Your task to perform on an android device: turn on sleep mode Image 0: 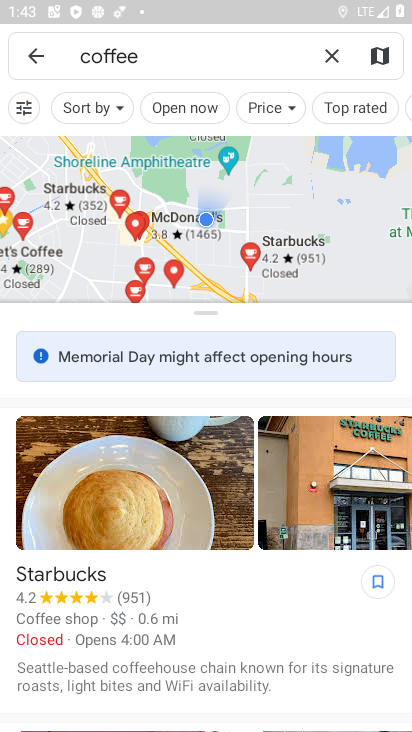
Step 0: press home button
Your task to perform on an android device: turn on sleep mode Image 1: 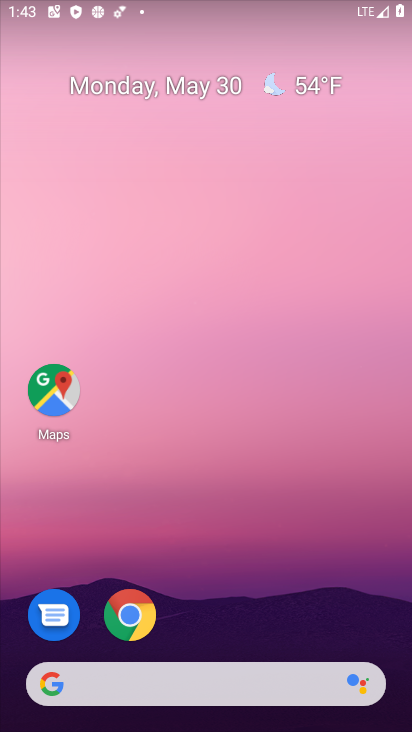
Step 1: drag from (286, 3) to (246, 468)
Your task to perform on an android device: turn on sleep mode Image 2: 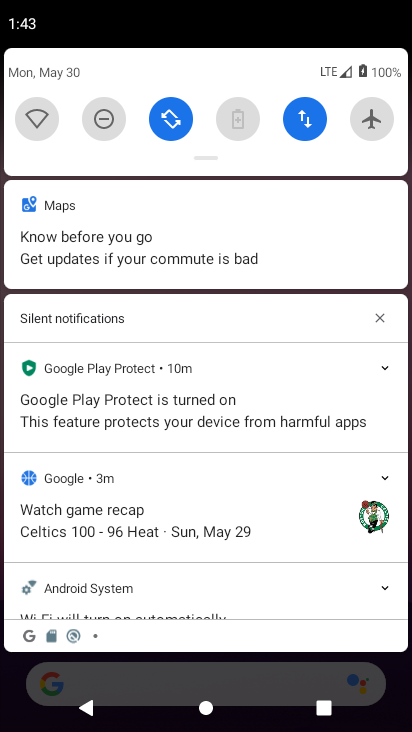
Step 2: drag from (169, 162) to (136, 502)
Your task to perform on an android device: turn on sleep mode Image 3: 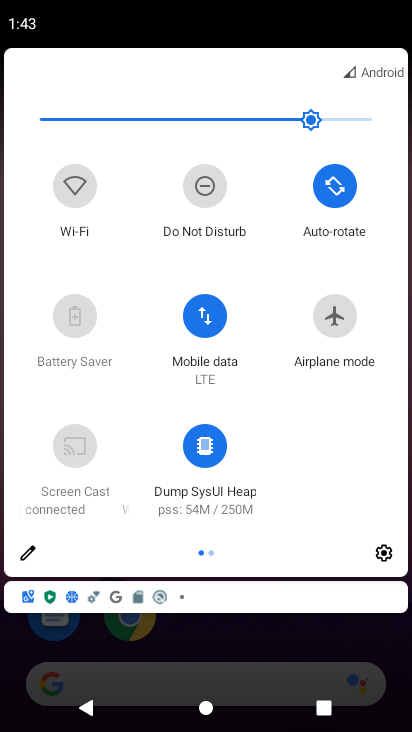
Step 3: click (27, 546)
Your task to perform on an android device: turn on sleep mode Image 4: 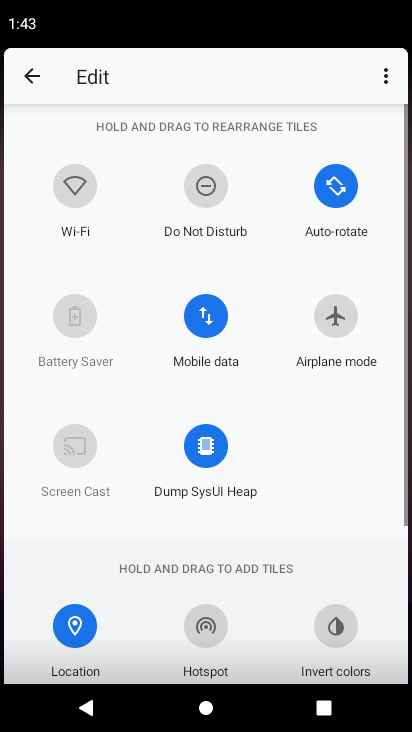
Step 4: task complete